Your task to perform on an android device: Find coffee shops on Maps Image 0: 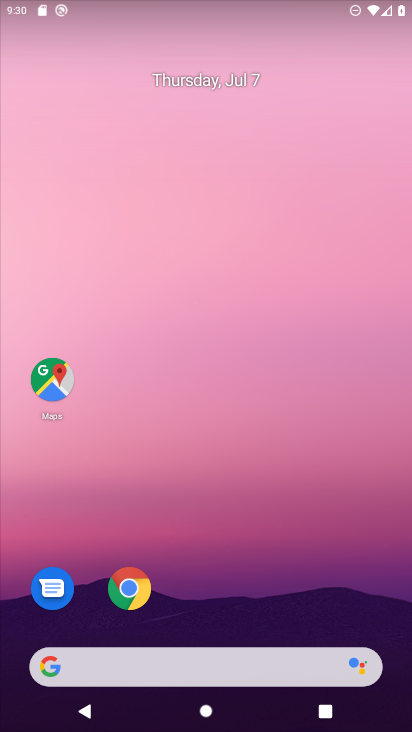
Step 0: click (233, 183)
Your task to perform on an android device: Find coffee shops on Maps Image 1: 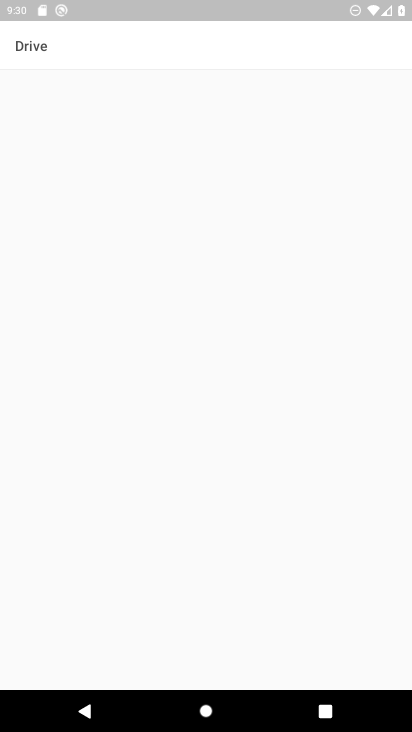
Step 1: press home button
Your task to perform on an android device: Find coffee shops on Maps Image 2: 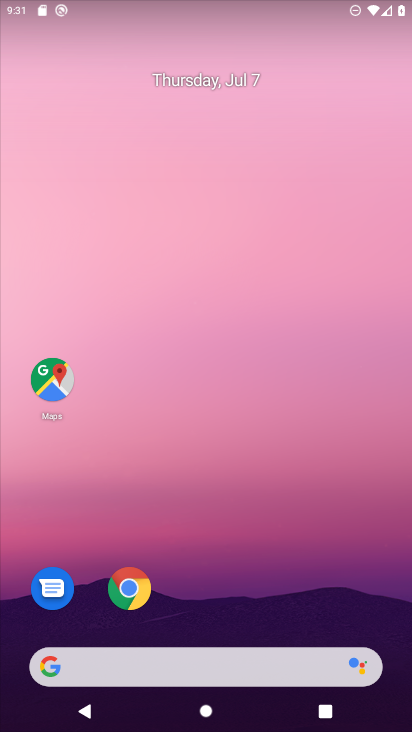
Step 2: click (59, 364)
Your task to perform on an android device: Find coffee shops on Maps Image 3: 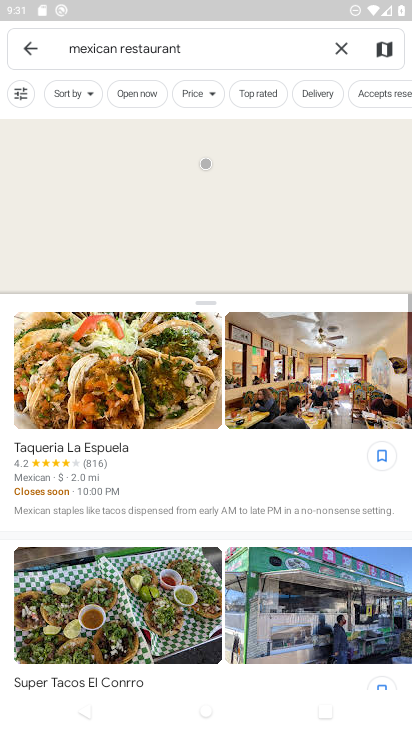
Step 3: click (345, 45)
Your task to perform on an android device: Find coffee shops on Maps Image 4: 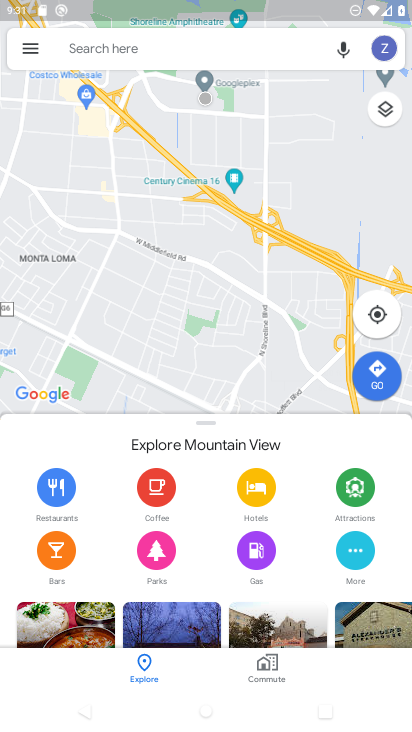
Step 4: click (212, 37)
Your task to perform on an android device: Find coffee shops on Maps Image 5: 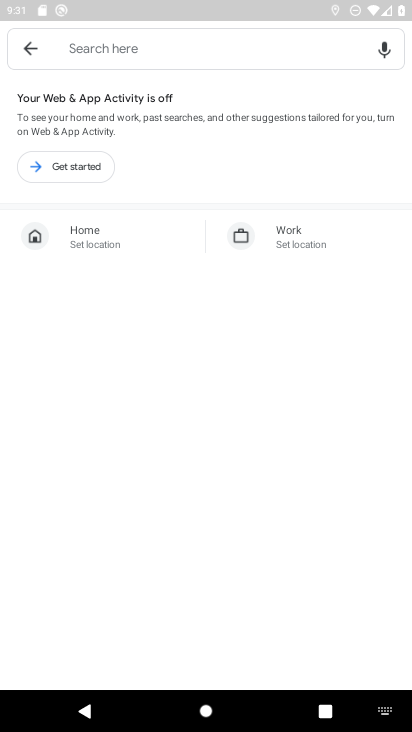
Step 5: type "coffee shops"
Your task to perform on an android device: Find coffee shops on Maps Image 6: 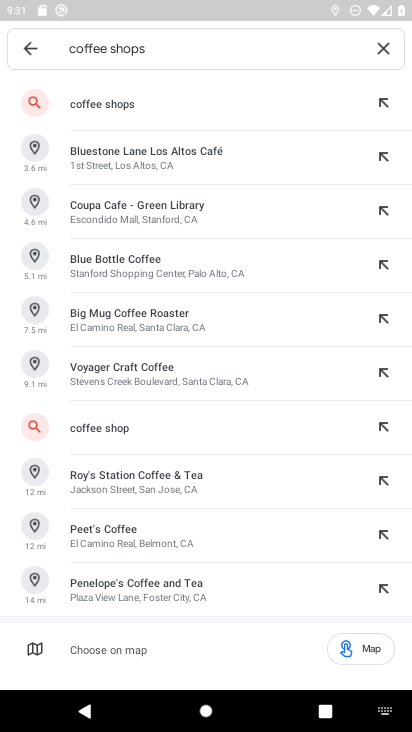
Step 6: click (181, 112)
Your task to perform on an android device: Find coffee shops on Maps Image 7: 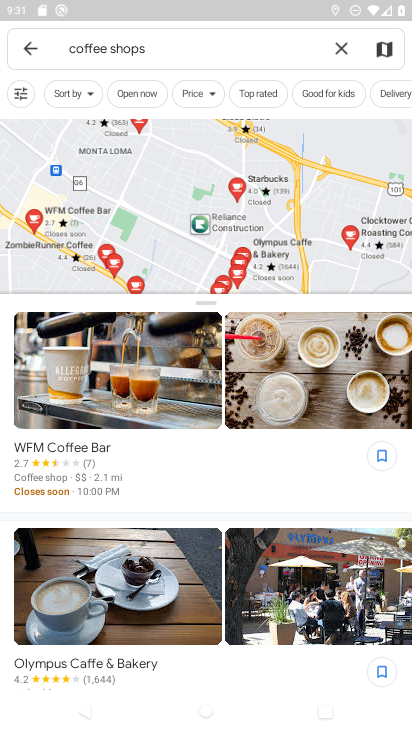
Step 7: task complete